Your task to perform on an android device: Open Google Image 0: 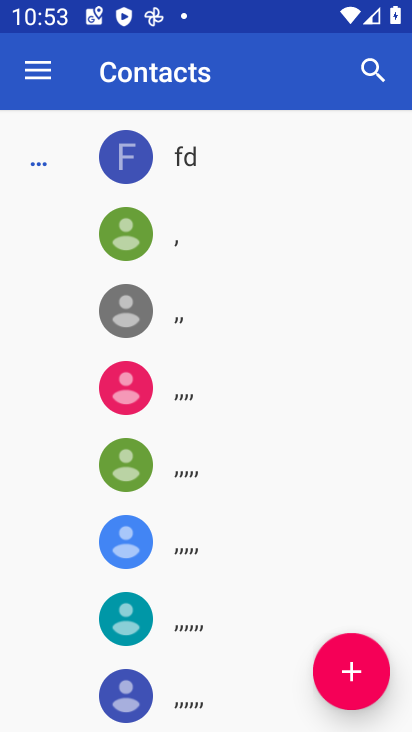
Step 0: press home button
Your task to perform on an android device: Open Google Image 1: 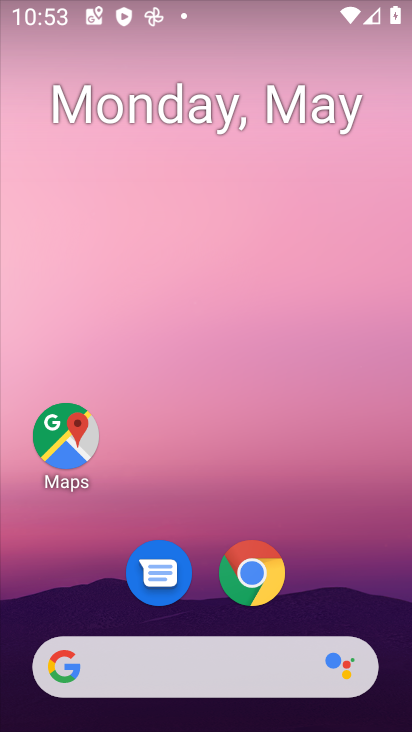
Step 1: click (274, 585)
Your task to perform on an android device: Open Google Image 2: 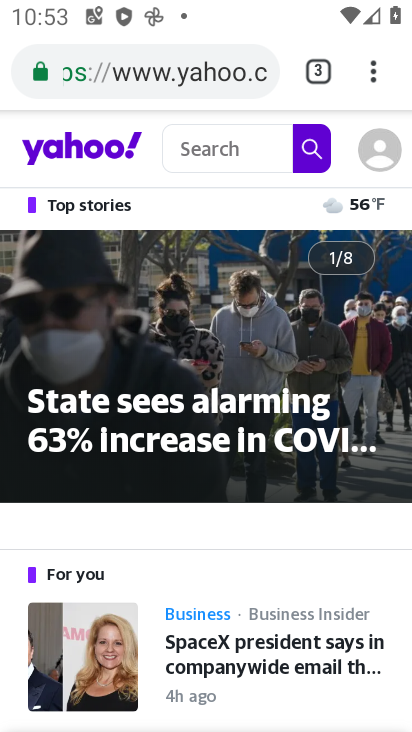
Step 2: task complete